Your task to perform on an android device: Open battery settings Image 0: 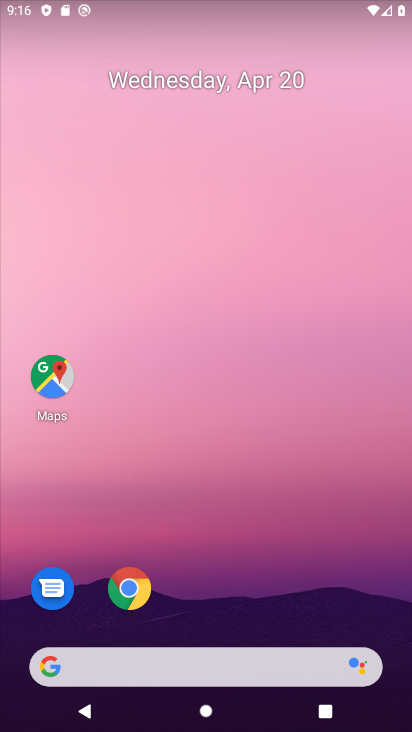
Step 0: drag from (263, 595) to (185, 137)
Your task to perform on an android device: Open battery settings Image 1: 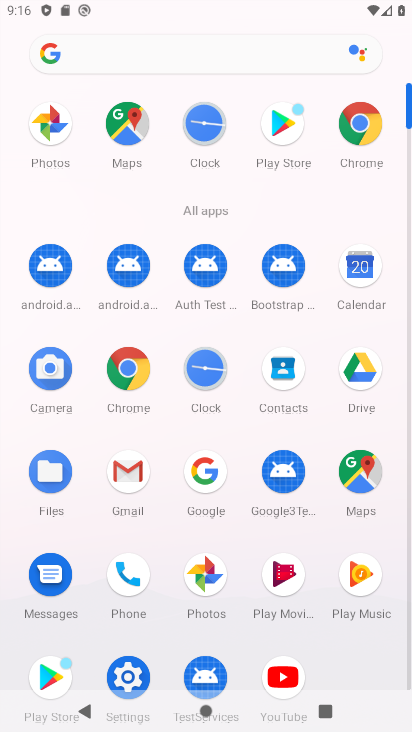
Step 1: click (128, 663)
Your task to perform on an android device: Open battery settings Image 2: 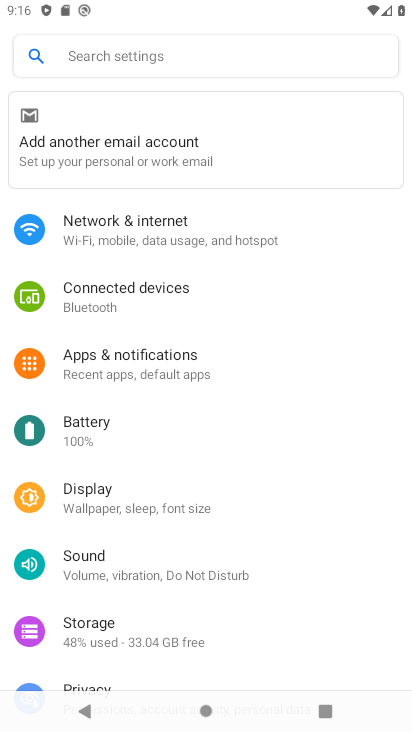
Step 2: click (57, 437)
Your task to perform on an android device: Open battery settings Image 3: 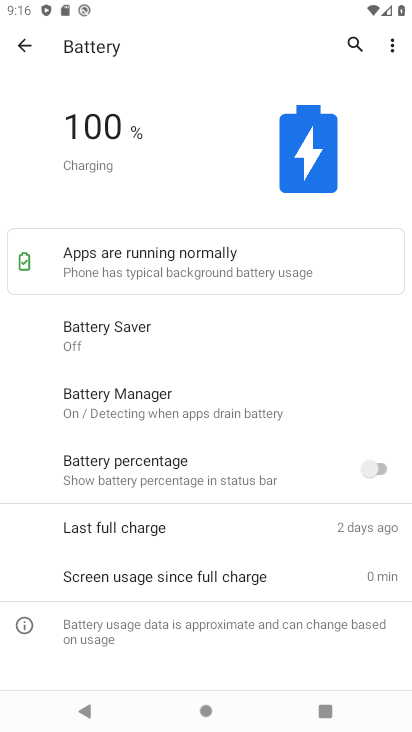
Step 3: task complete